Your task to perform on an android device: Go to Google Image 0: 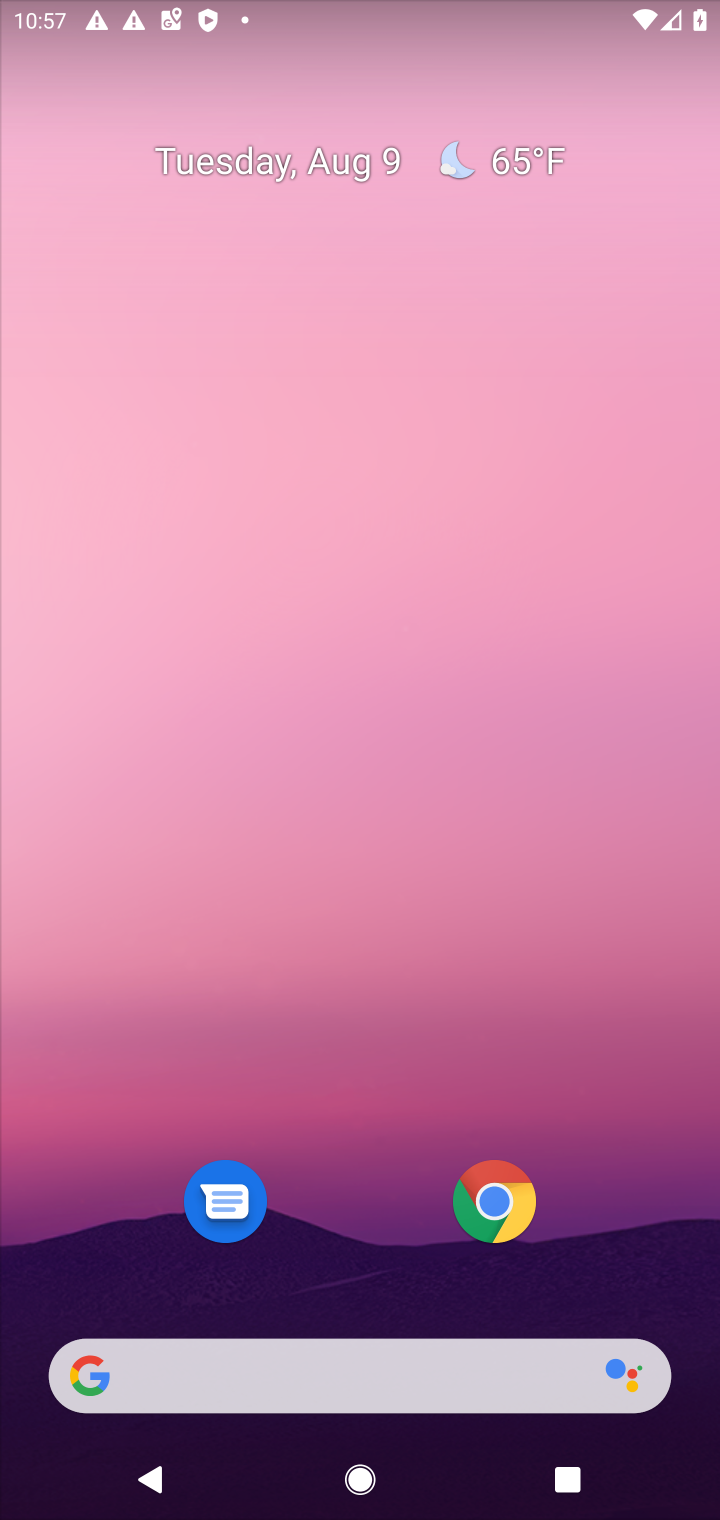
Step 0: press home button
Your task to perform on an android device: Go to Google Image 1: 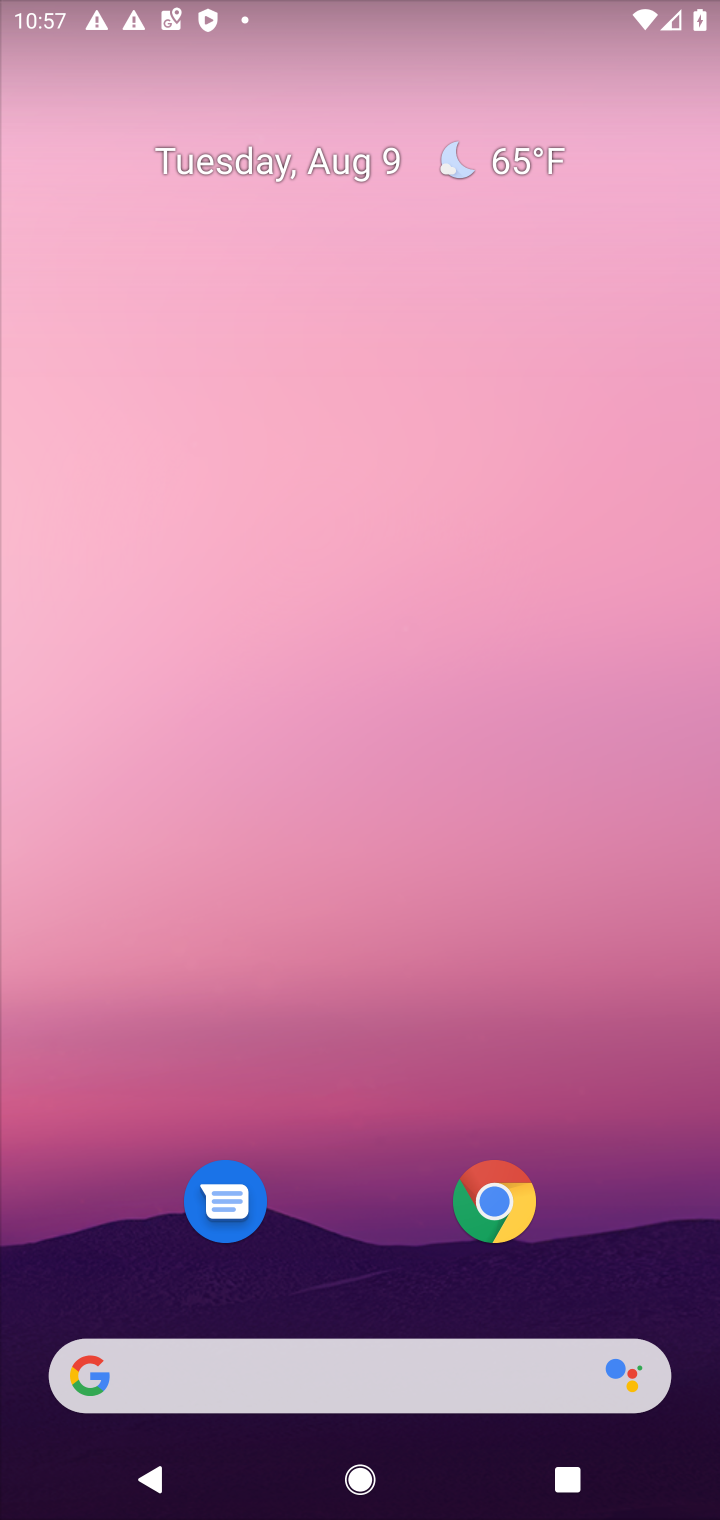
Step 1: drag from (398, 1032) to (385, 253)
Your task to perform on an android device: Go to Google Image 2: 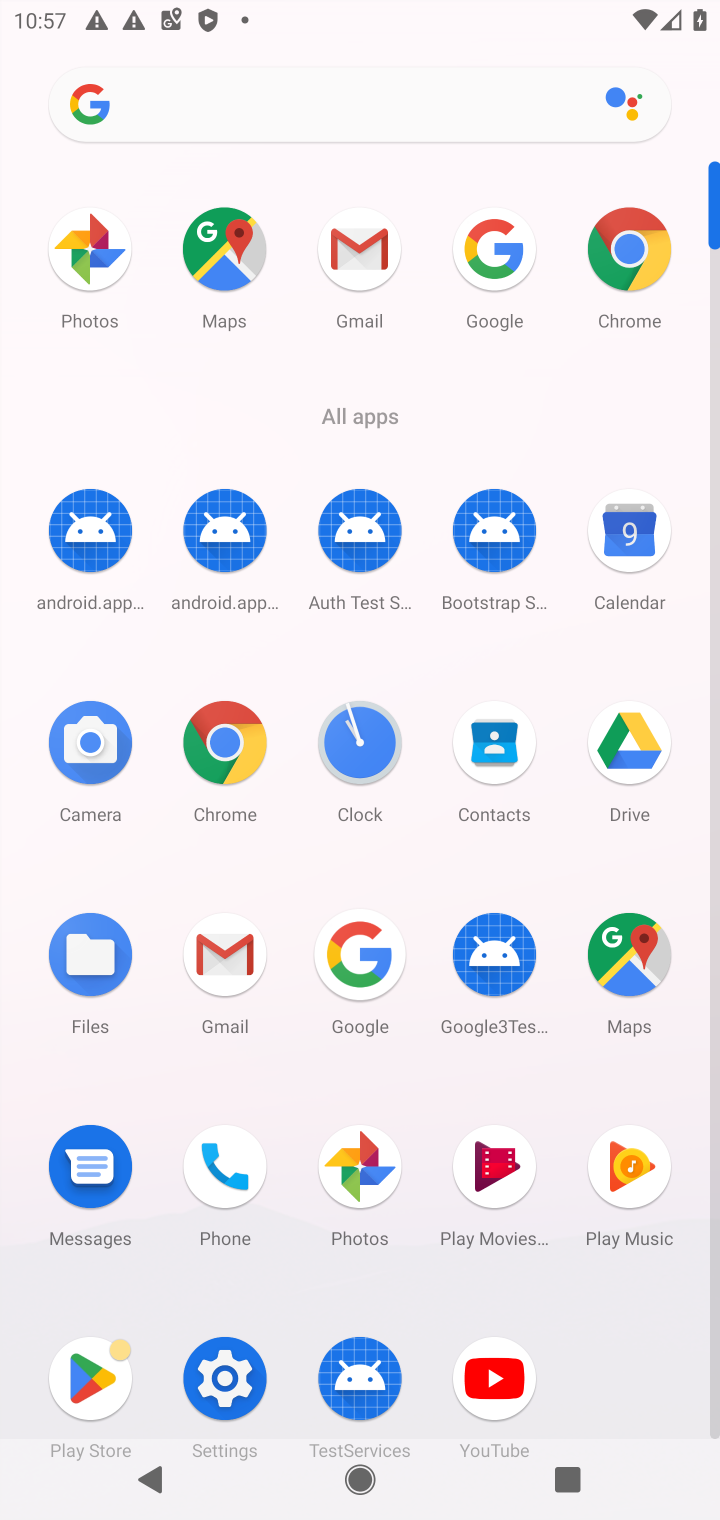
Step 2: click (488, 246)
Your task to perform on an android device: Go to Google Image 3: 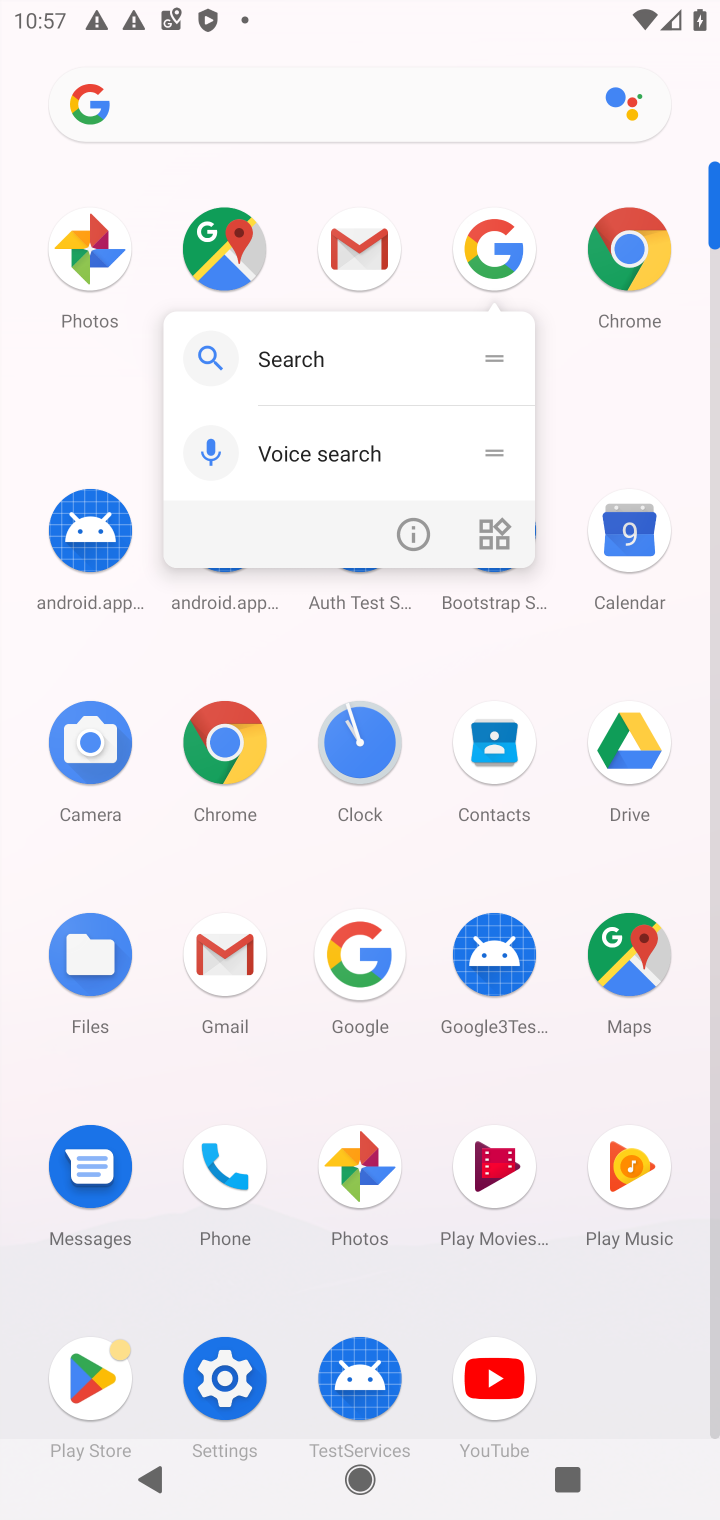
Step 3: click (482, 246)
Your task to perform on an android device: Go to Google Image 4: 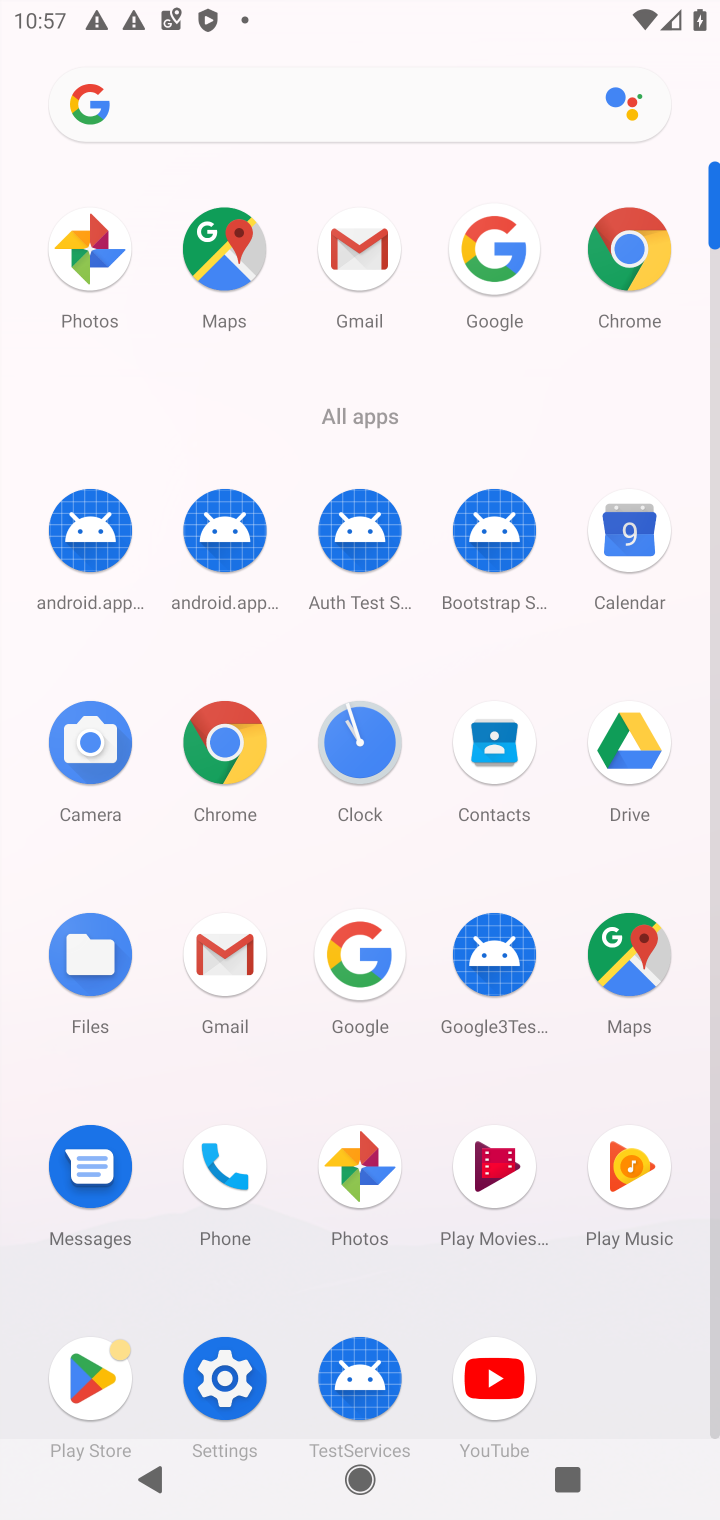
Step 4: click (491, 255)
Your task to perform on an android device: Go to Google Image 5: 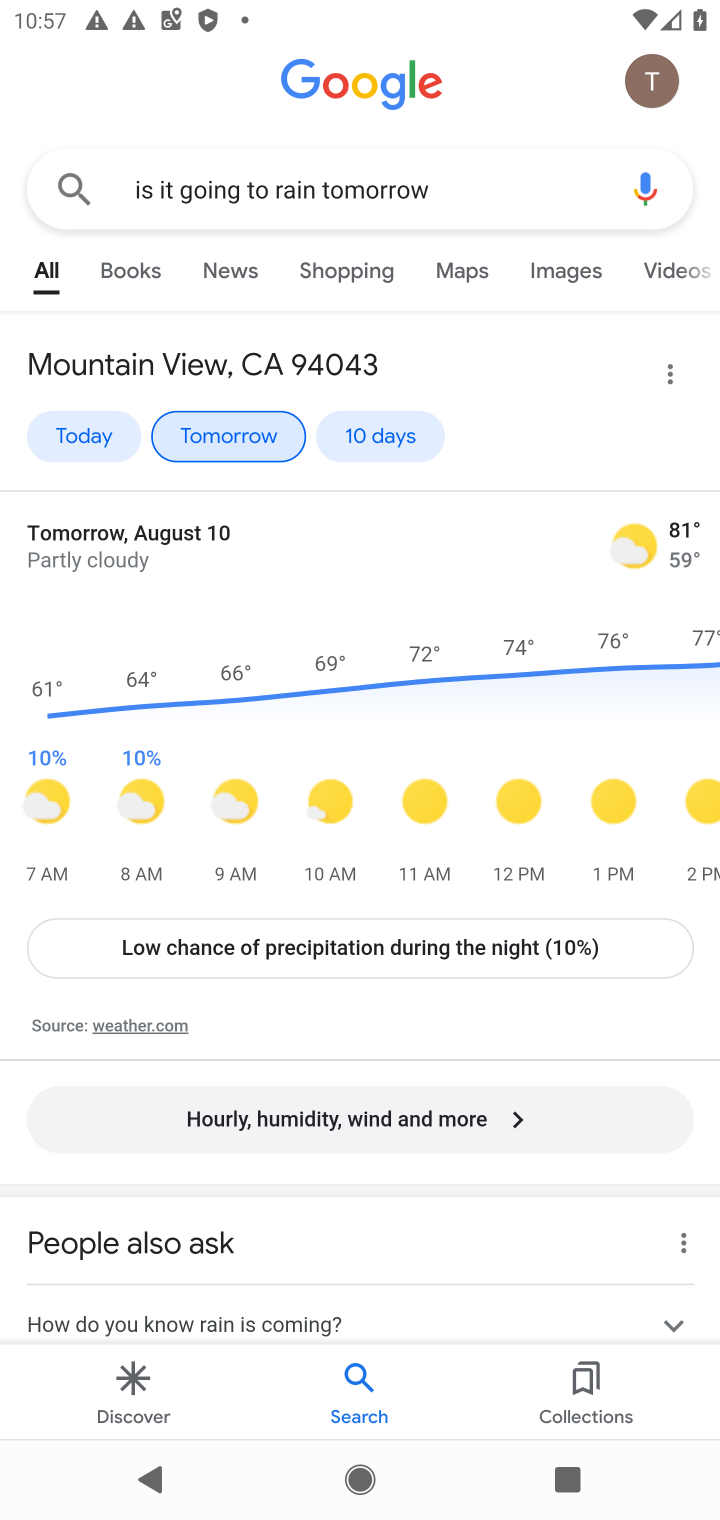
Step 5: click (332, 76)
Your task to perform on an android device: Go to Google Image 6: 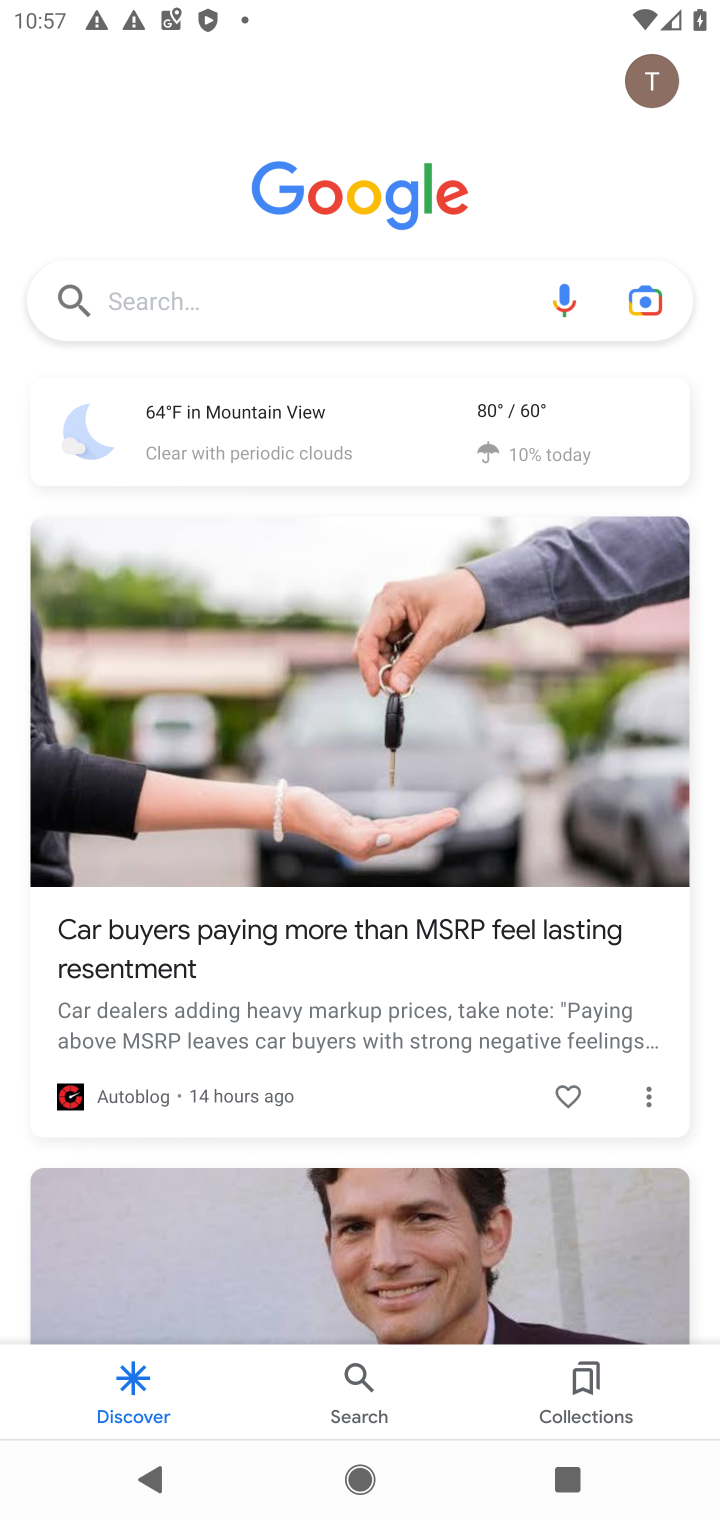
Step 6: task complete